Your task to perform on an android device: open app "Venmo" Image 0: 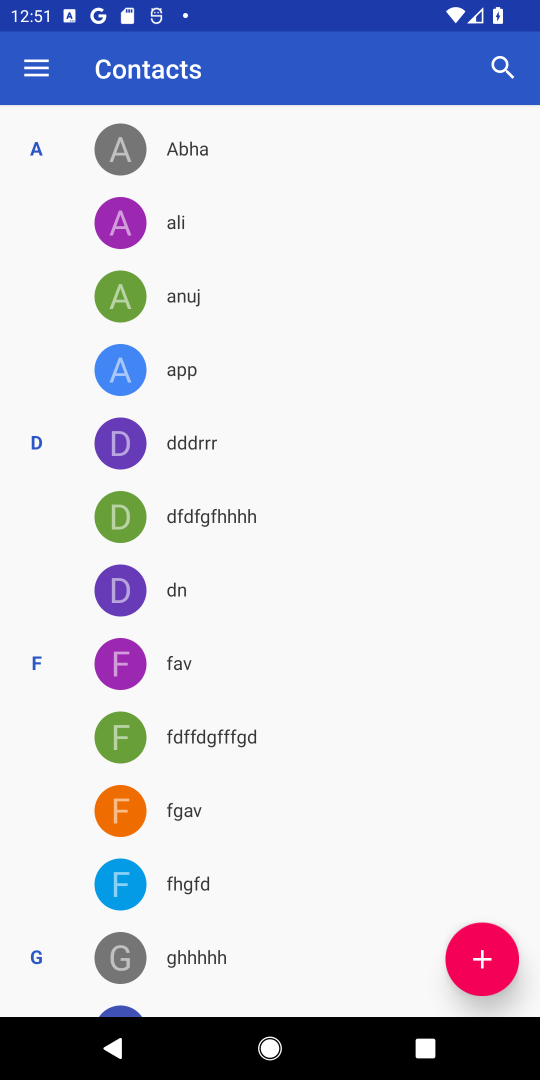
Step 0: press home button
Your task to perform on an android device: open app "Venmo" Image 1: 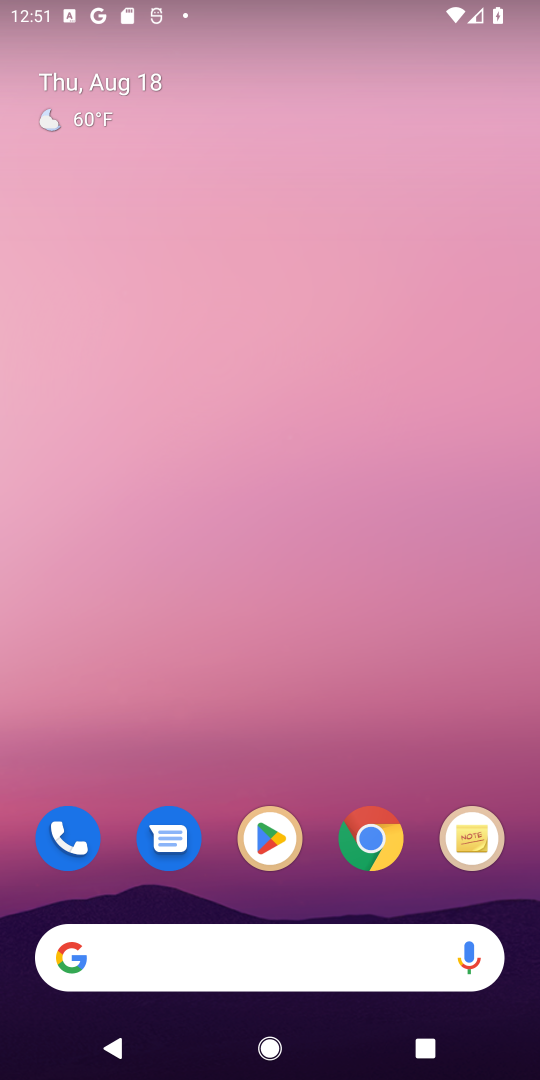
Step 1: click (271, 835)
Your task to perform on an android device: open app "Venmo" Image 2: 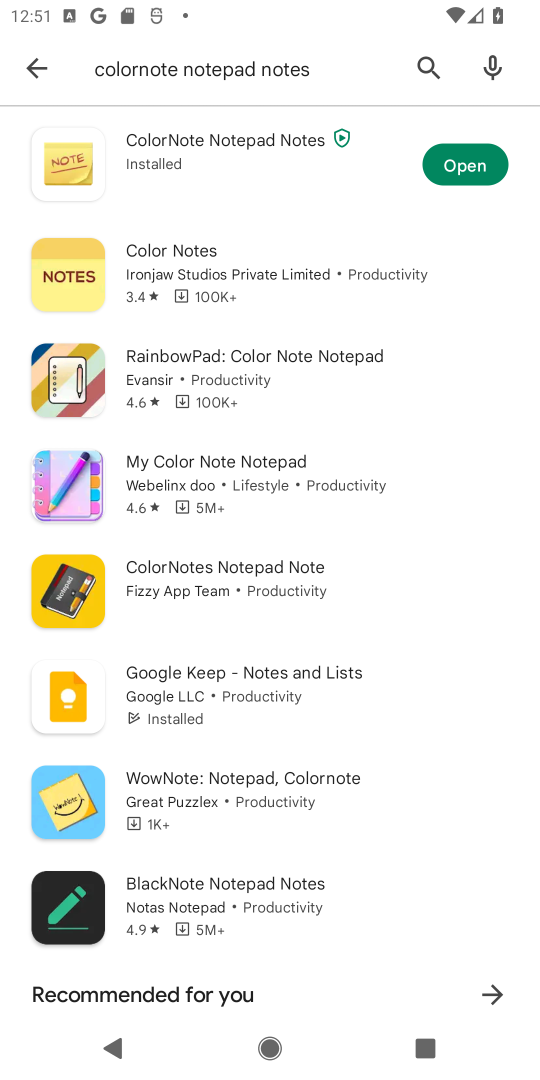
Step 2: click (427, 58)
Your task to perform on an android device: open app "Venmo" Image 3: 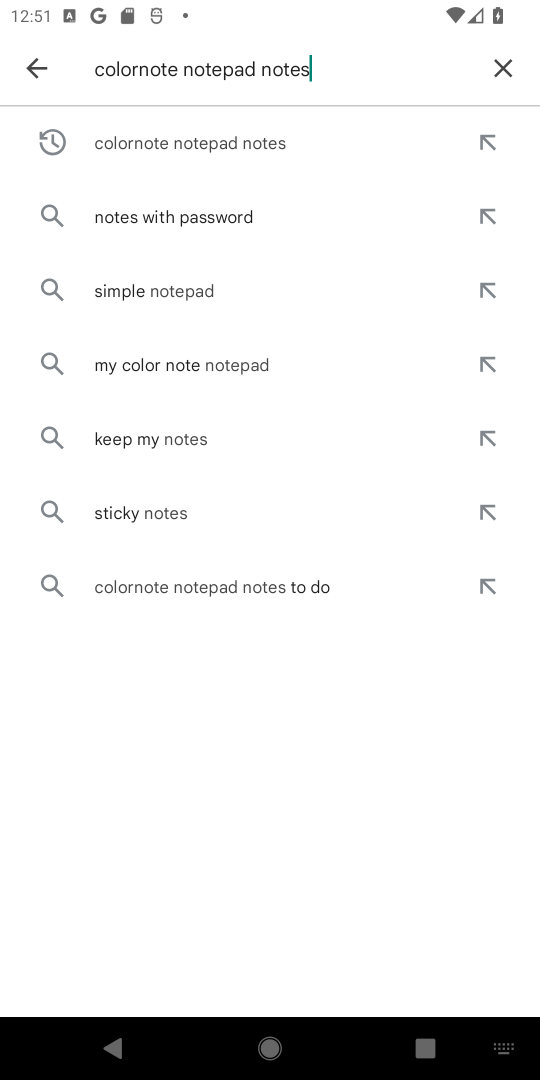
Step 3: click (494, 64)
Your task to perform on an android device: open app "Venmo" Image 4: 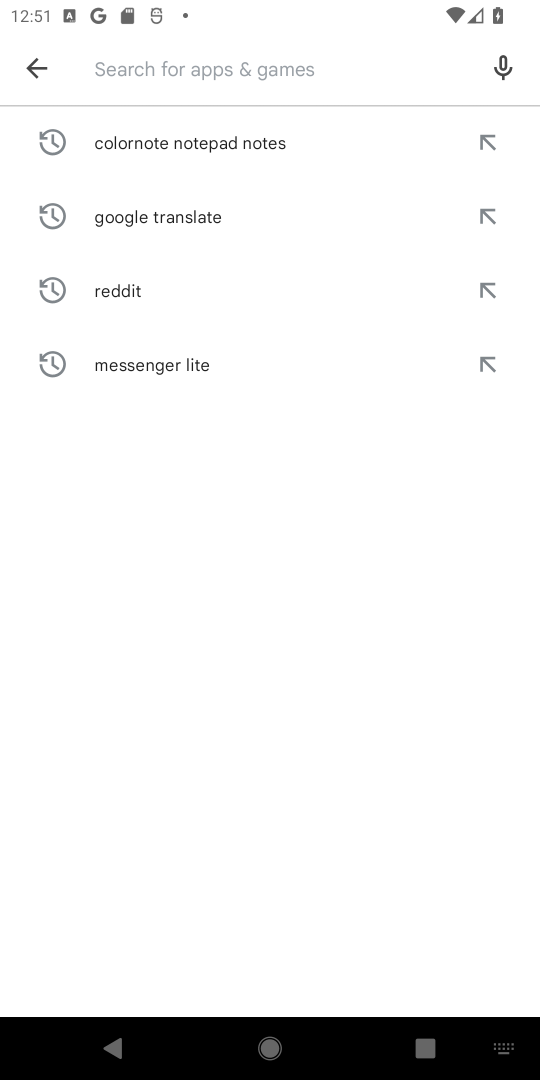
Step 4: type "Venmo"
Your task to perform on an android device: open app "Venmo" Image 5: 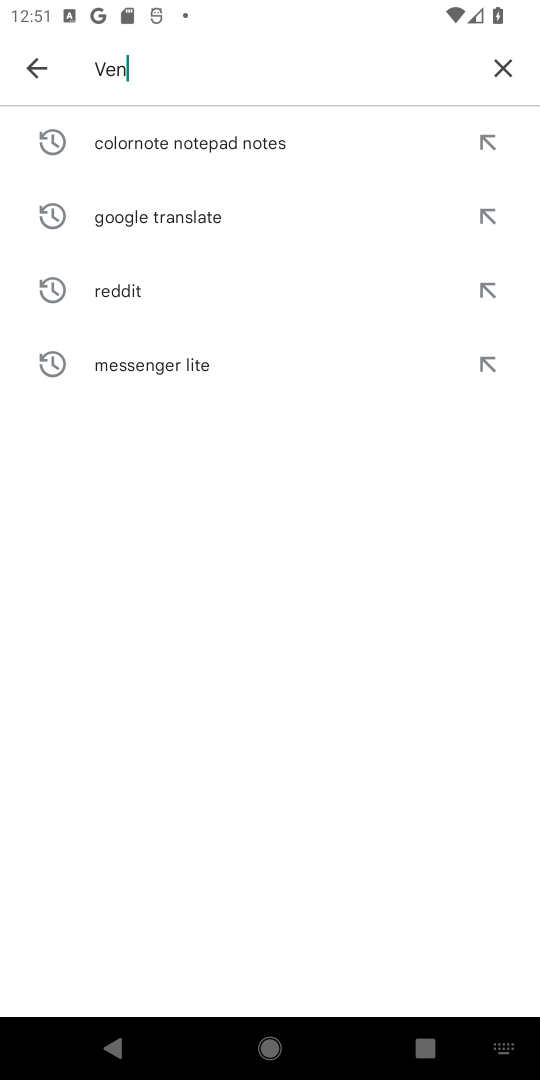
Step 5: type ""
Your task to perform on an android device: open app "Venmo" Image 6: 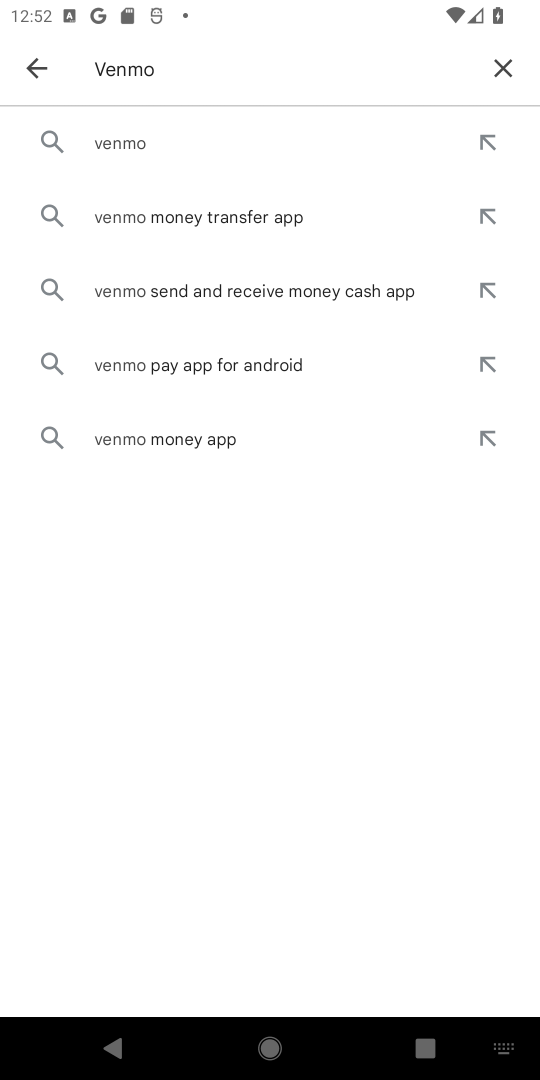
Step 6: click (132, 136)
Your task to perform on an android device: open app "Venmo" Image 7: 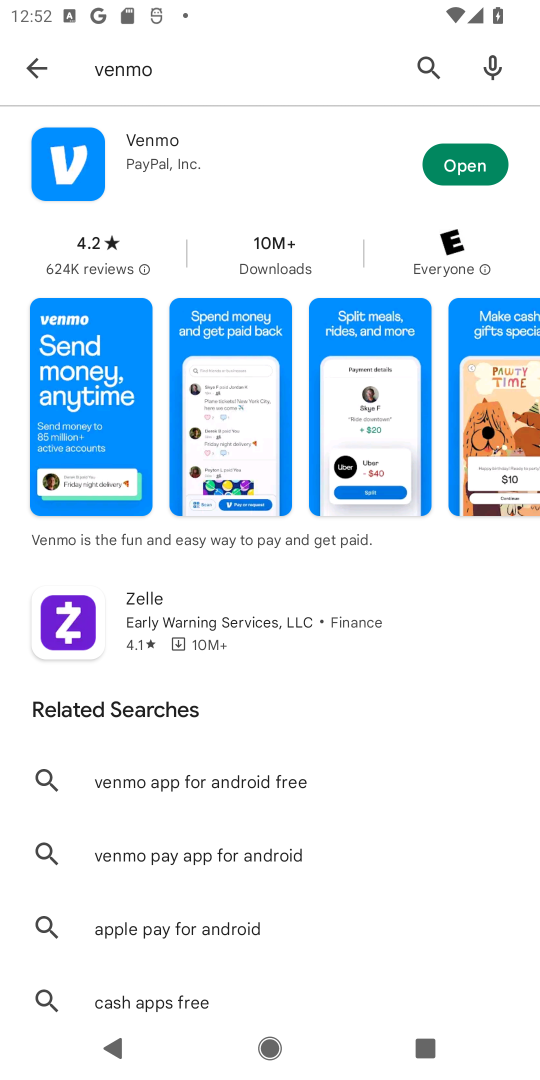
Step 7: click (456, 179)
Your task to perform on an android device: open app "Venmo" Image 8: 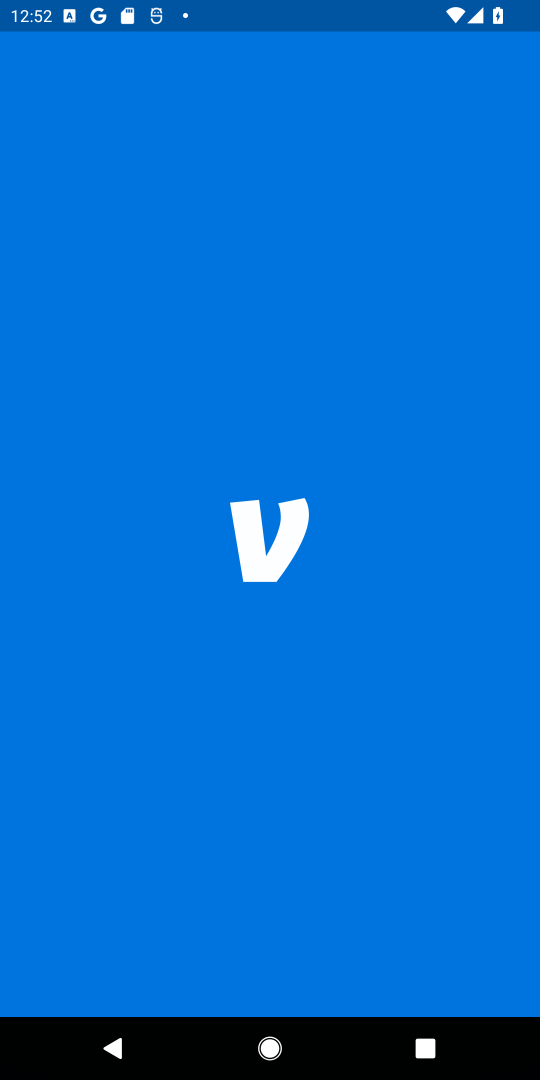
Step 8: task complete